Your task to perform on an android device: Go to internet settings Image 0: 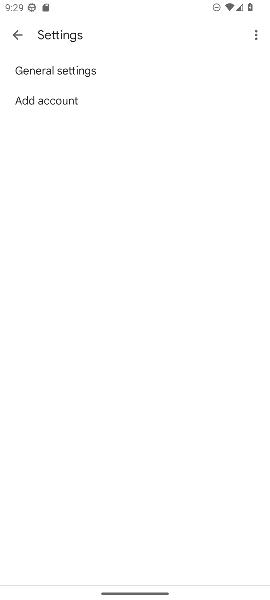
Step 0: press home button
Your task to perform on an android device: Go to internet settings Image 1: 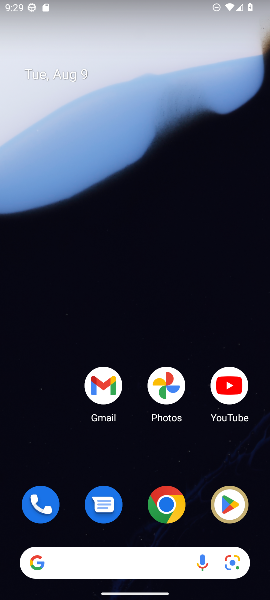
Step 1: drag from (141, 472) to (104, 113)
Your task to perform on an android device: Go to internet settings Image 2: 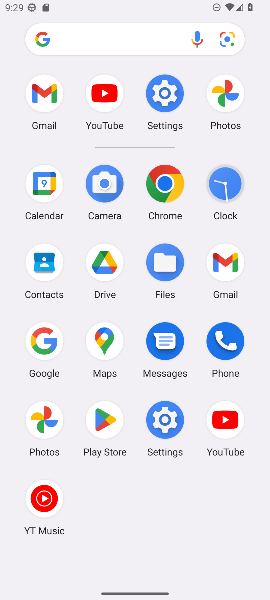
Step 2: click (166, 91)
Your task to perform on an android device: Go to internet settings Image 3: 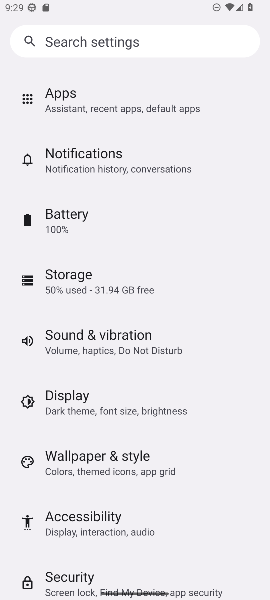
Step 3: drag from (145, 140) to (139, 334)
Your task to perform on an android device: Go to internet settings Image 4: 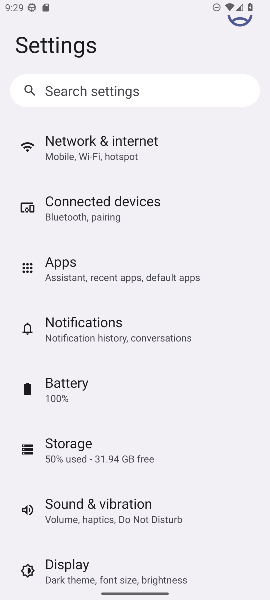
Step 4: click (90, 142)
Your task to perform on an android device: Go to internet settings Image 5: 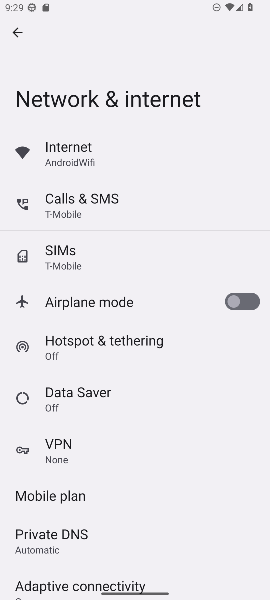
Step 5: click (67, 149)
Your task to perform on an android device: Go to internet settings Image 6: 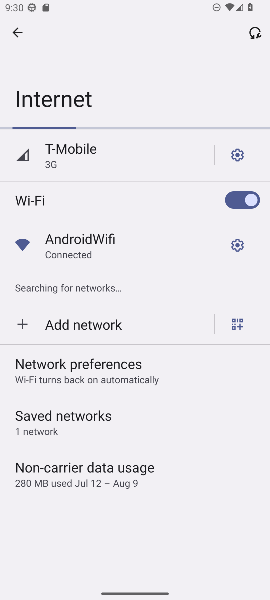
Step 6: task complete